Your task to perform on an android device: Open Google Maps and go to "Timeline" Image 0: 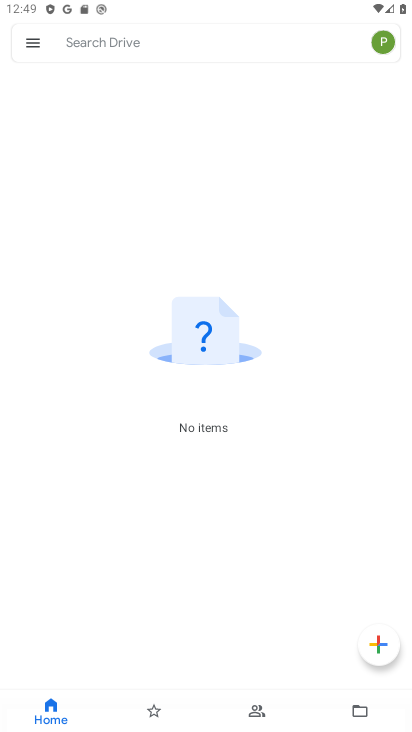
Step 0: press home button
Your task to perform on an android device: Open Google Maps and go to "Timeline" Image 1: 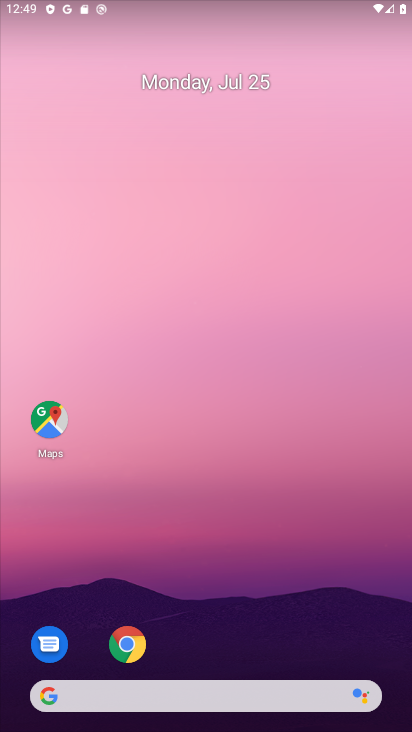
Step 1: click (49, 413)
Your task to perform on an android device: Open Google Maps and go to "Timeline" Image 2: 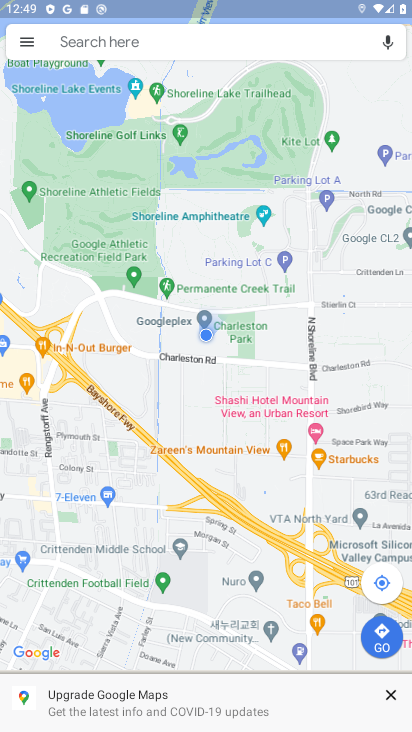
Step 2: click (22, 39)
Your task to perform on an android device: Open Google Maps and go to "Timeline" Image 3: 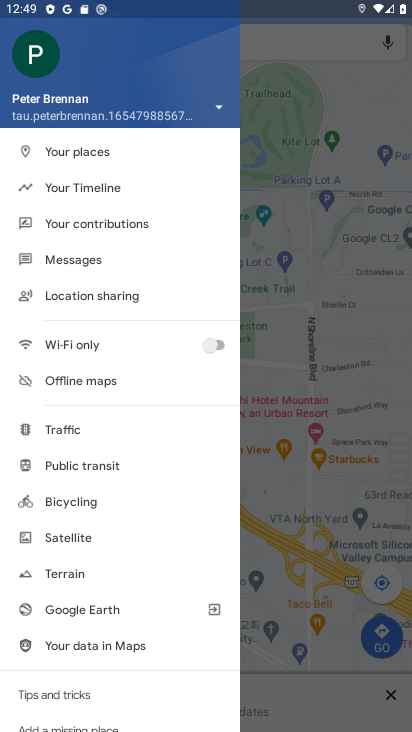
Step 3: click (80, 192)
Your task to perform on an android device: Open Google Maps and go to "Timeline" Image 4: 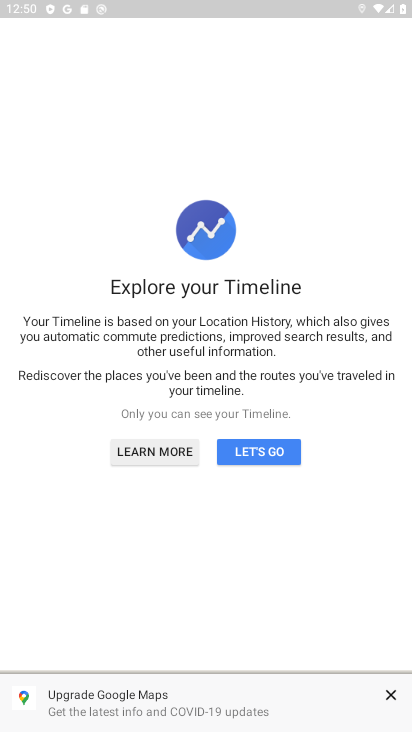
Step 4: click (272, 454)
Your task to perform on an android device: Open Google Maps and go to "Timeline" Image 5: 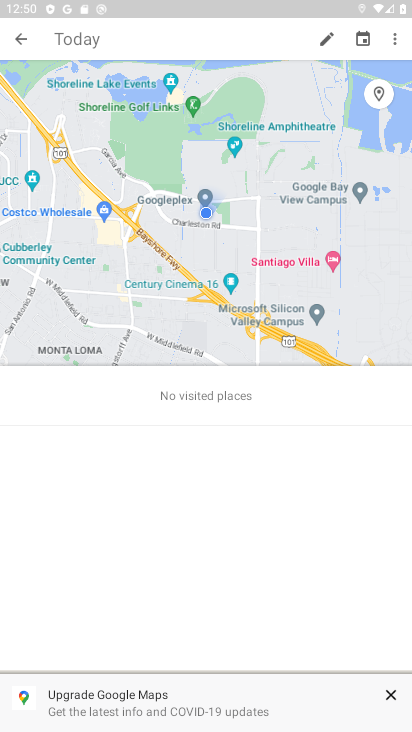
Step 5: task complete